Your task to perform on an android device: visit the assistant section in the google photos Image 0: 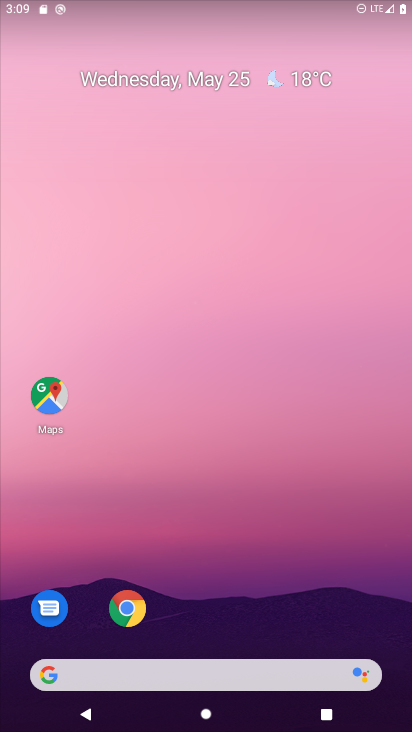
Step 0: drag from (386, 633) to (330, 72)
Your task to perform on an android device: visit the assistant section in the google photos Image 1: 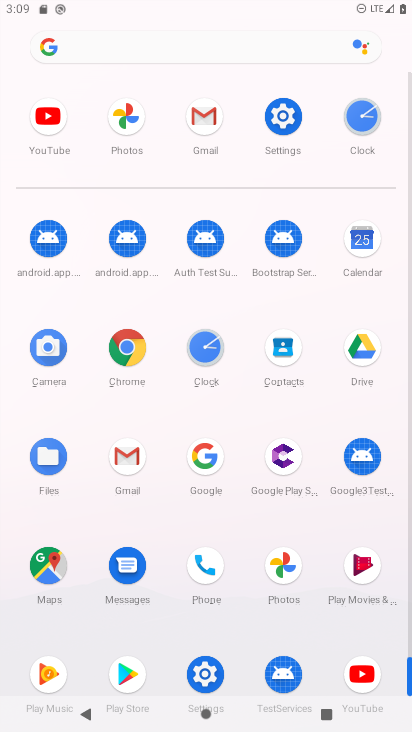
Step 1: click (284, 565)
Your task to perform on an android device: visit the assistant section in the google photos Image 2: 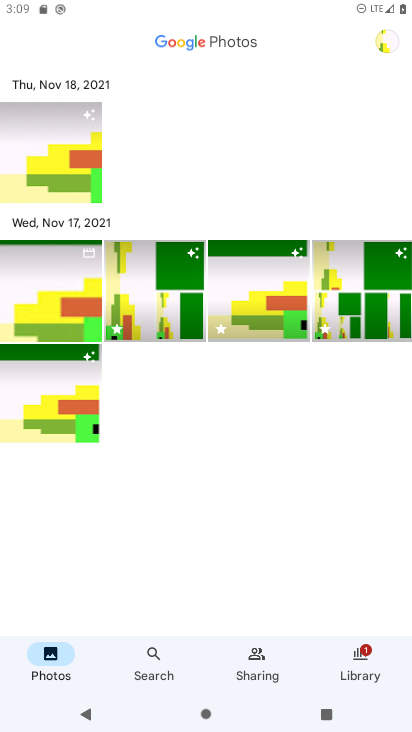
Step 2: click (356, 649)
Your task to perform on an android device: visit the assistant section in the google photos Image 3: 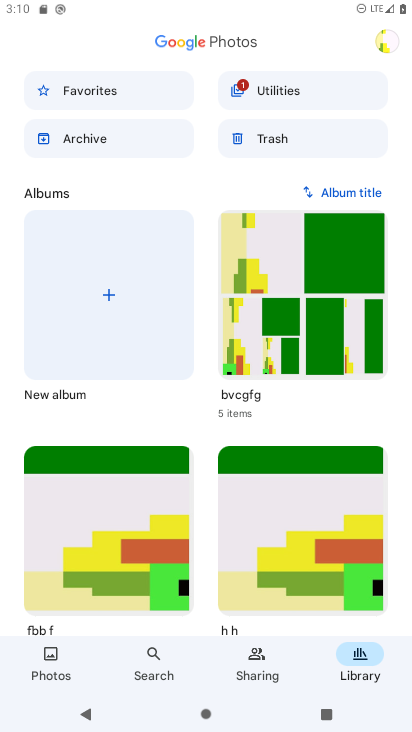
Step 3: task complete